Your task to perform on an android device: turn on translation in the chrome app Image 0: 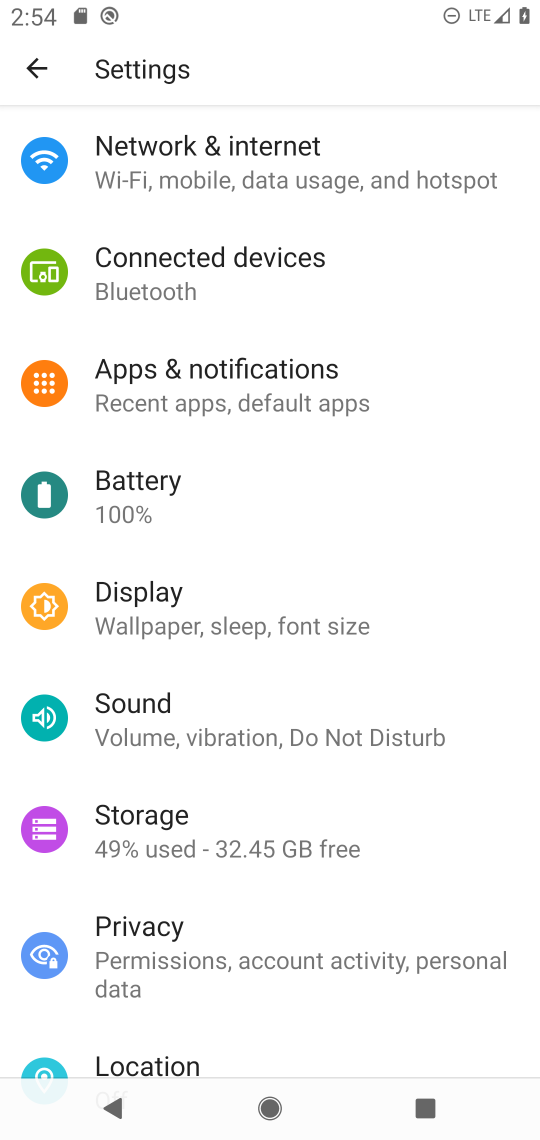
Step 0: press home button
Your task to perform on an android device: turn on translation in the chrome app Image 1: 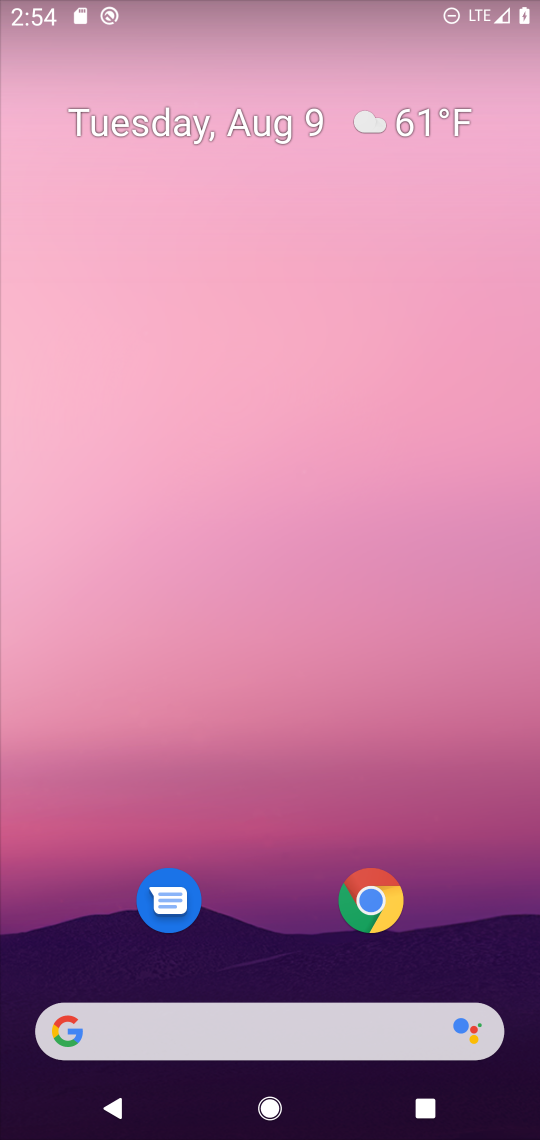
Step 1: drag from (442, 961) to (474, 201)
Your task to perform on an android device: turn on translation in the chrome app Image 2: 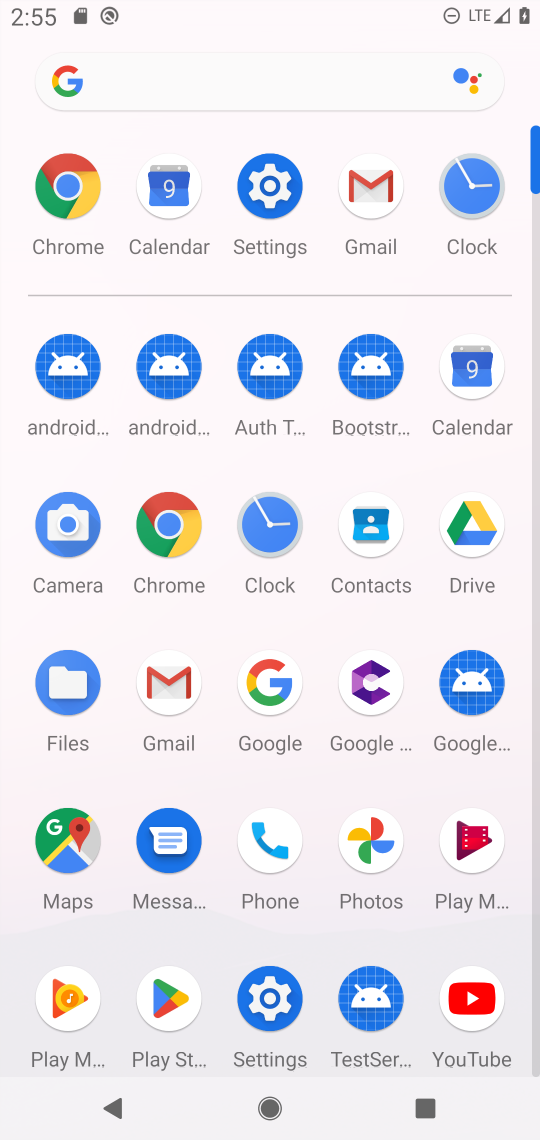
Step 2: click (161, 538)
Your task to perform on an android device: turn on translation in the chrome app Image 3: 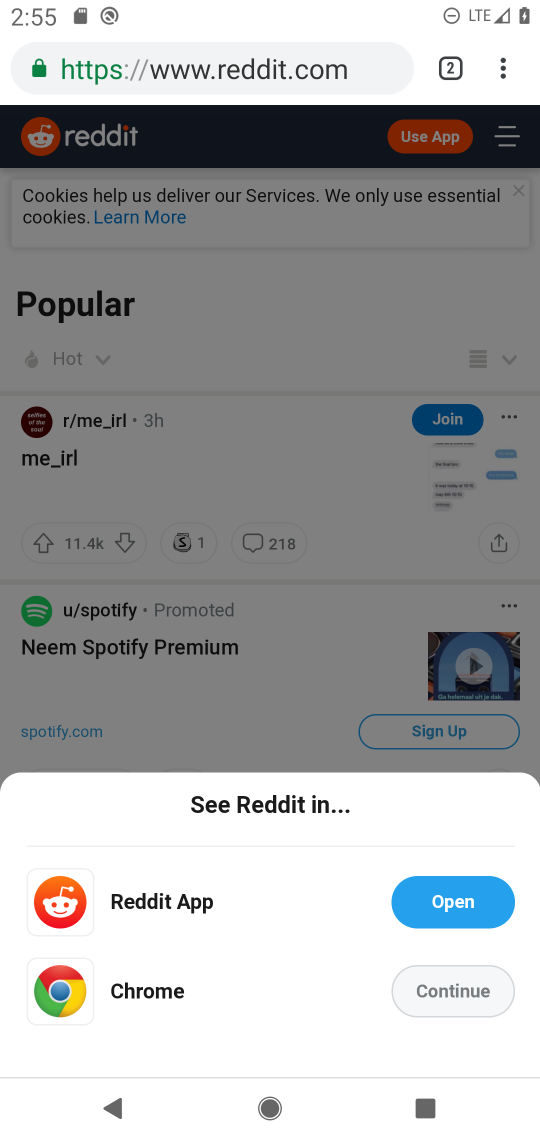
Step 3: click (506, 74)
Your task to perform on an android device: turn on translation in the chrome app Image 4: 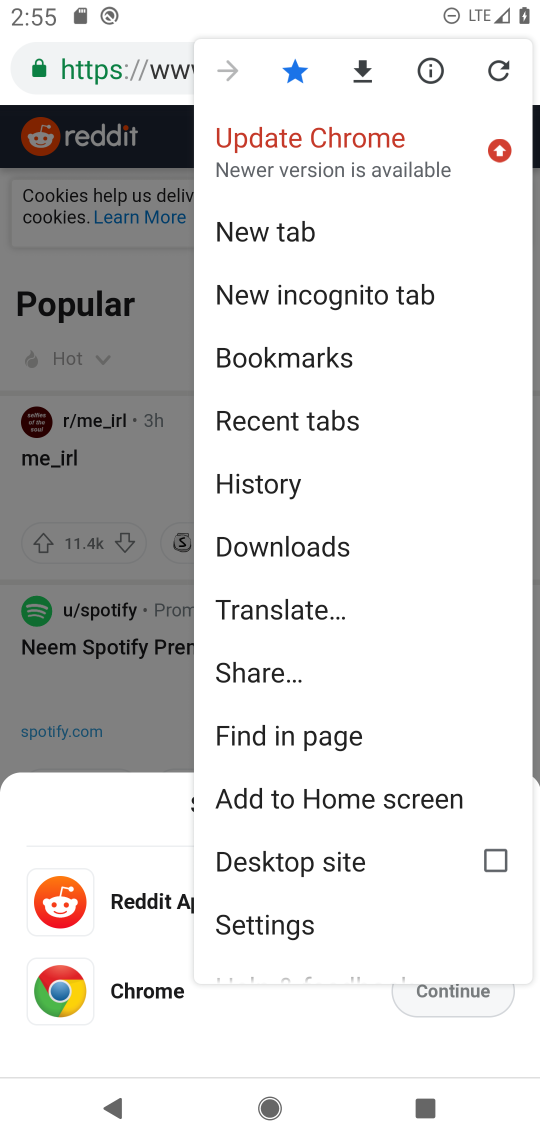
Step 4: click (299, 922)
Your task to perform on an android device: turn on translation in the chrome app Image 5: 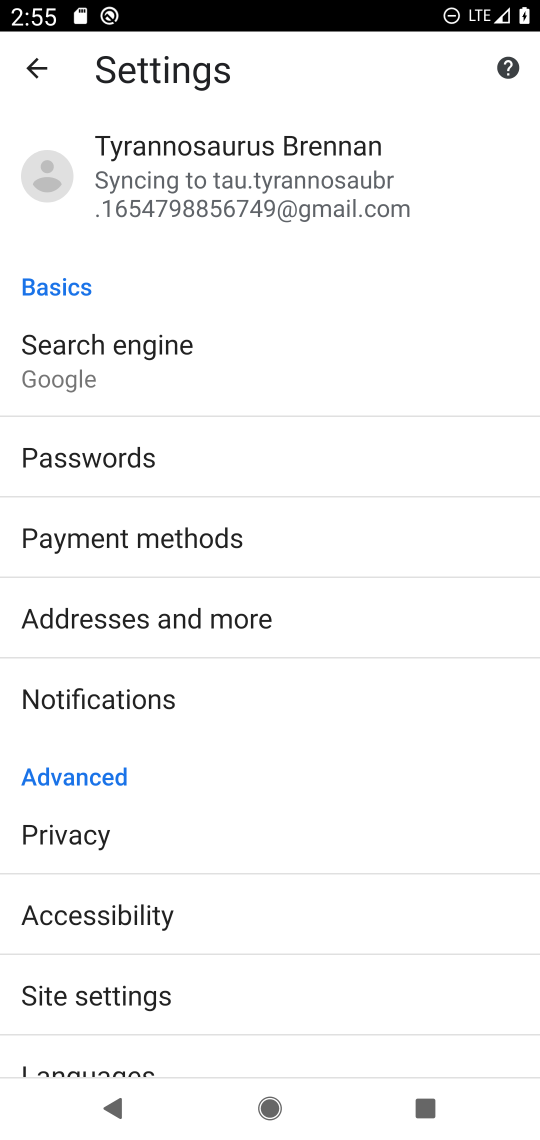
Step 5: drag from (344, 900) to (364, 656)
Your task to perform on an android device: turn on translation in the chrome app Image 6: 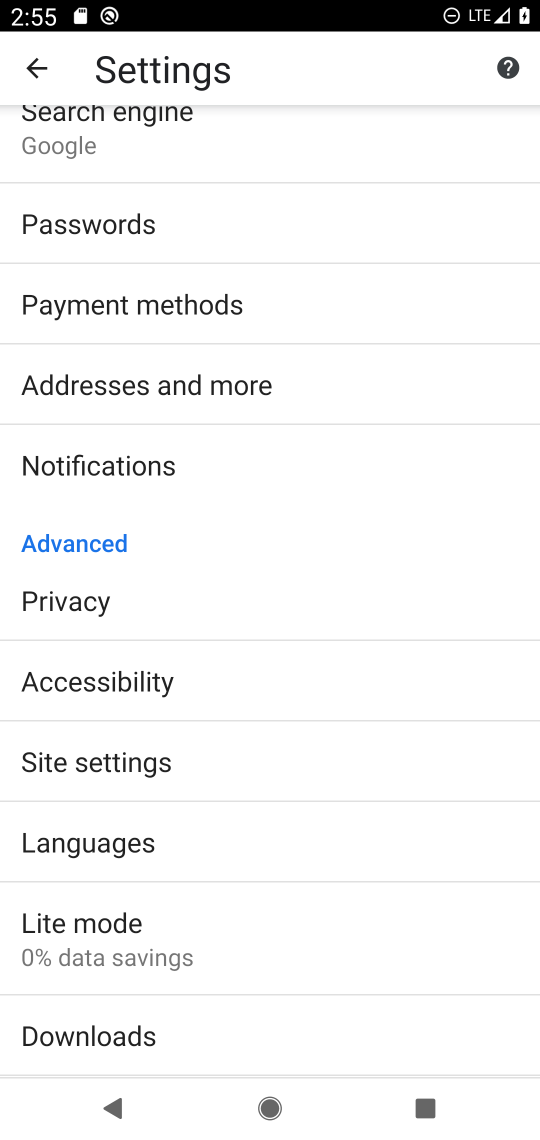
Step 6: drag from (396, 828) to (397, 613)
Your task to perform on an android device: turn on translation in the chrome app Image 7: 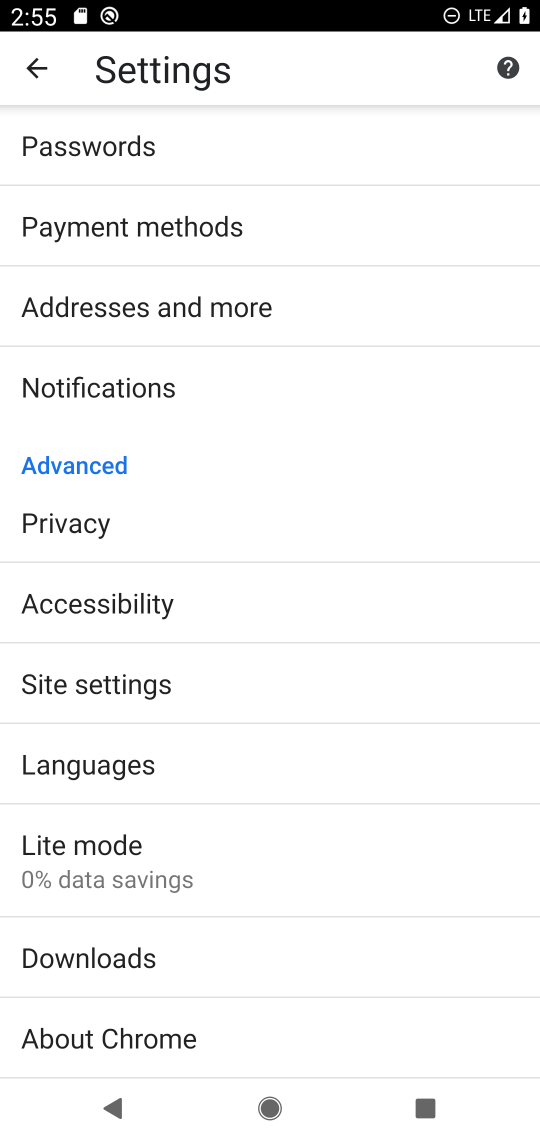
Step 7: drag from (351, 880) to (352, 682)
Your task to perform on an android device: turn on translation in the chrome app Image 8: 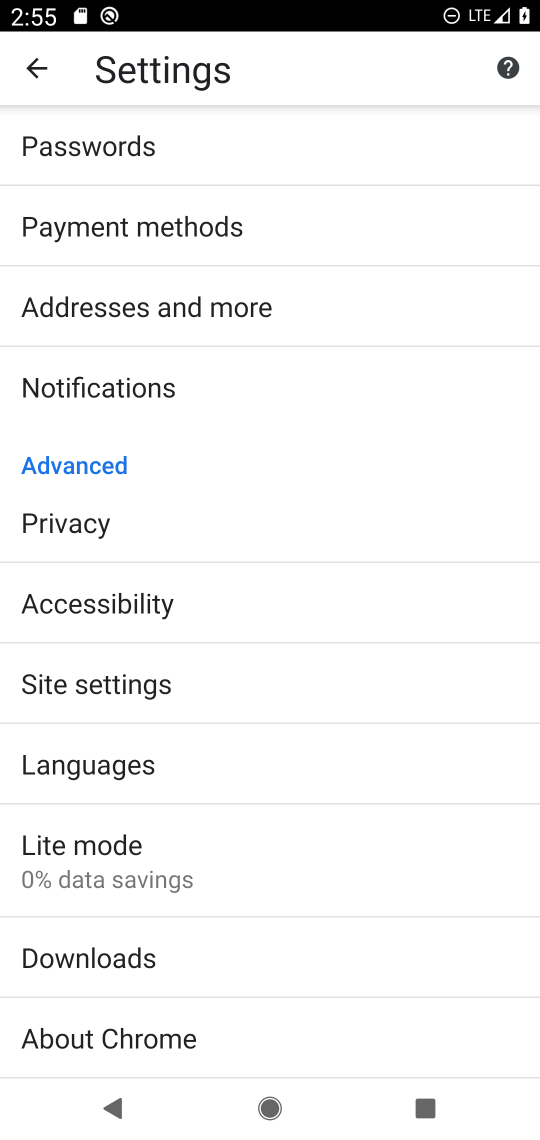
Step 8: click (284, 773)
Your task to perform on an android device: turn on translation in the chrome app Image 9: 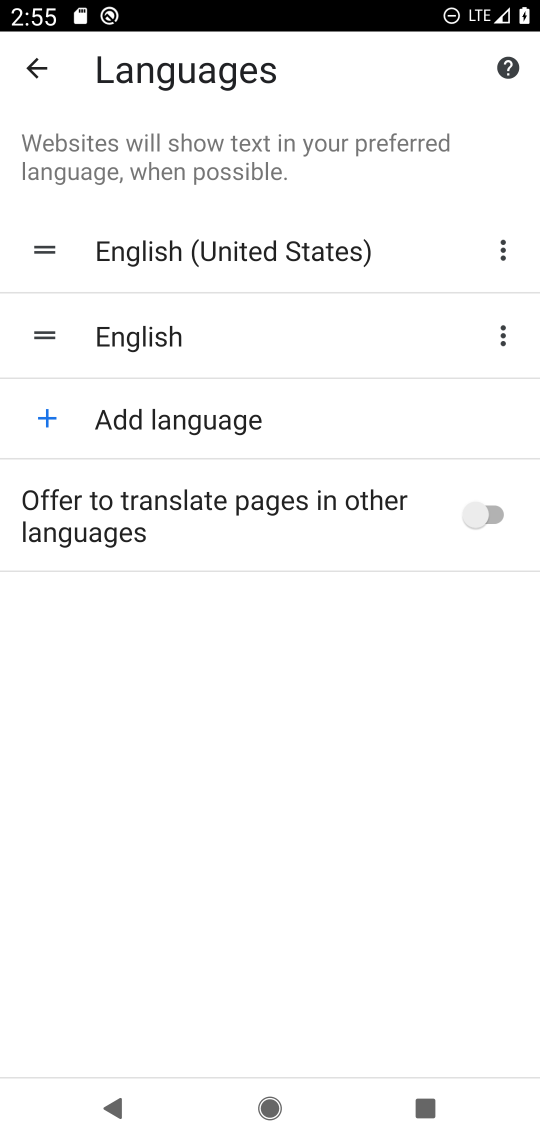
Step 9: click (489, 503)
Your task to perform on an android device: turn on translation in the chrome app Image 10: 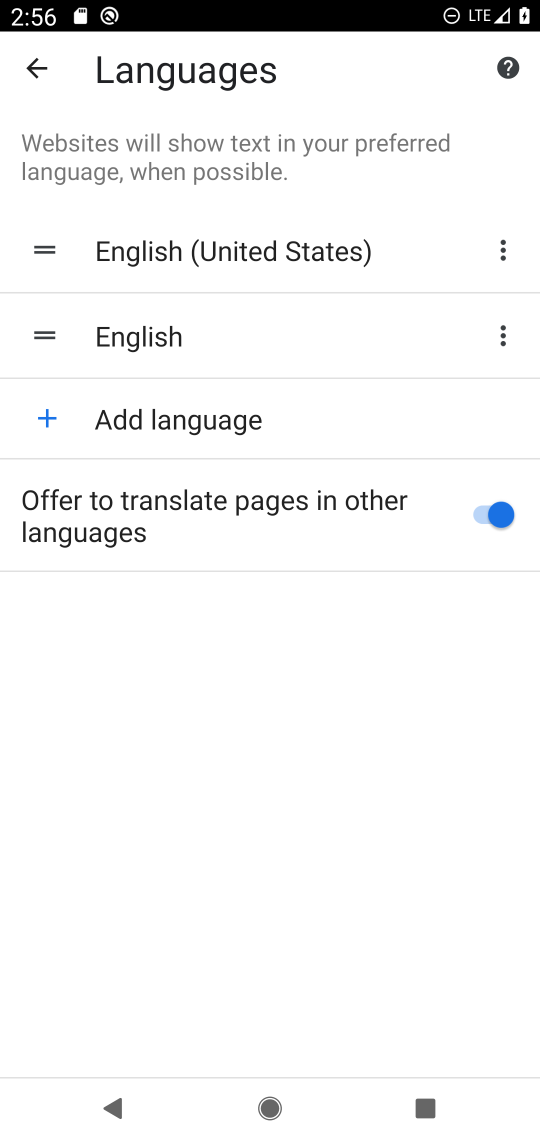
Step 10: task complete